Your task to perform on an android device: Go to Yahoo.com Image 0: 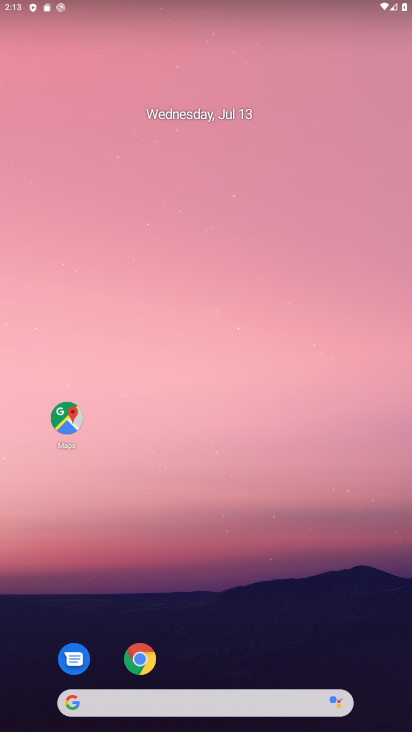
Step 0: press home button
Your task to perform on an android device: Go to Yahoo.com Image 1: 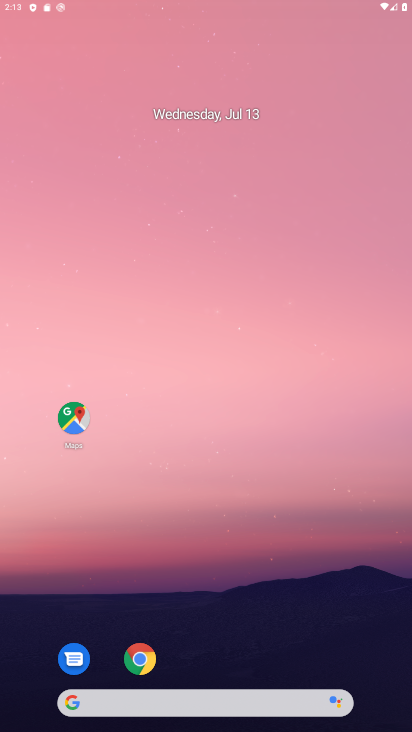
Step 1: drag from (224, 643) to (287, 148)
Your task to perform on an android device: Go to Yahoo.com Image 2: 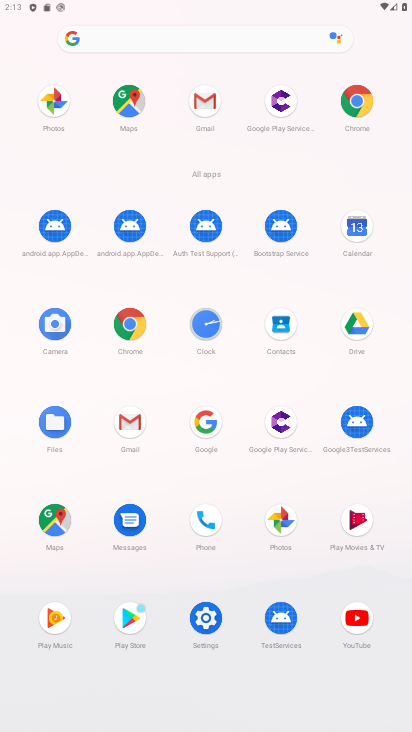
Step 2: click (348, 93)
Your task to perform on an android device: Go to Yahoo.com Image 3: 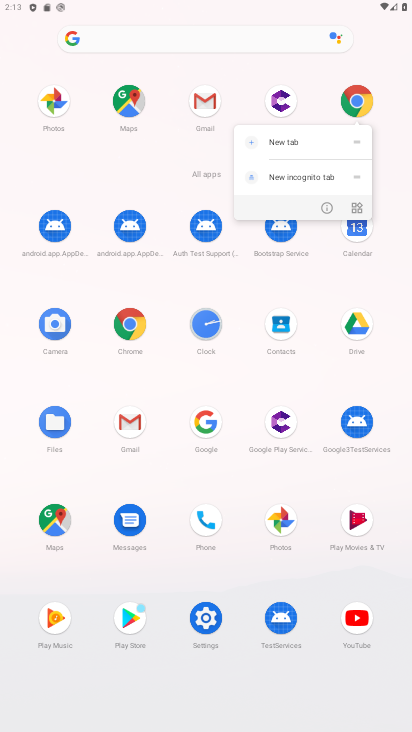
Step 3: click (359, 100)
Your task to perform on an android device: Go to Yahoo.com Image 4: 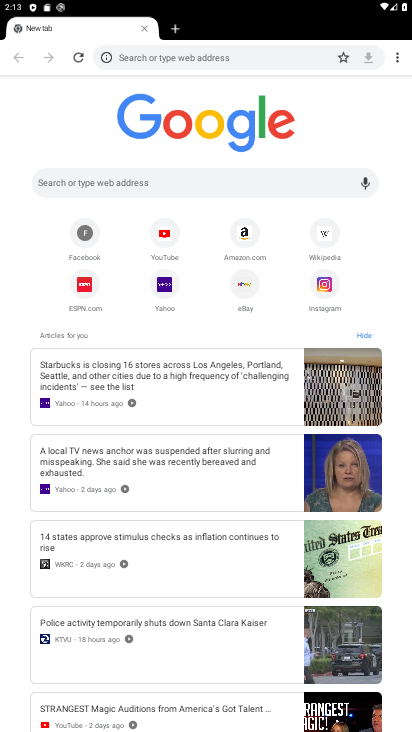
Step 4: click (162, 275)
Your task to perform on an android device: Go to Yahoo.com Image 5: 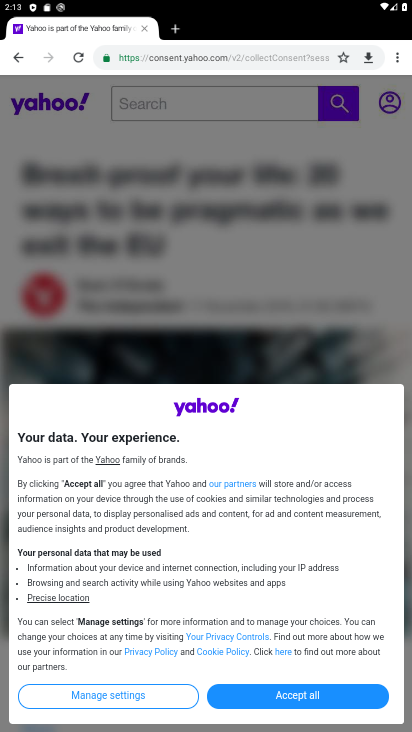
Step 5: click (289, 690)
Your task to perform on an android device: Go to Yahoo.com Image 6: 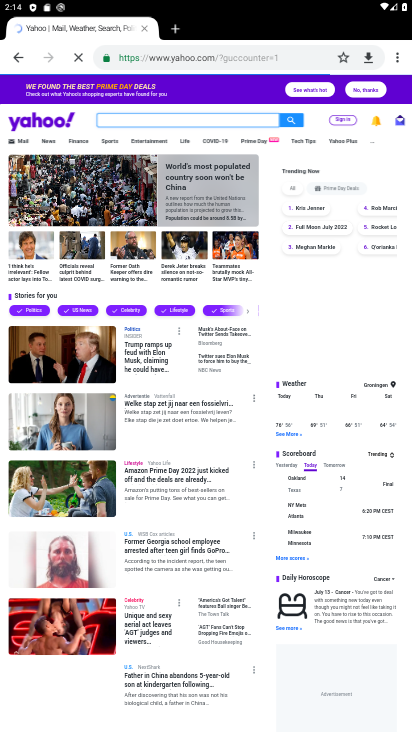
Step 6: drag from (221, 249) to (223, 177)
Your task to perform on an android device: Go to Yahoo.com Image 7: 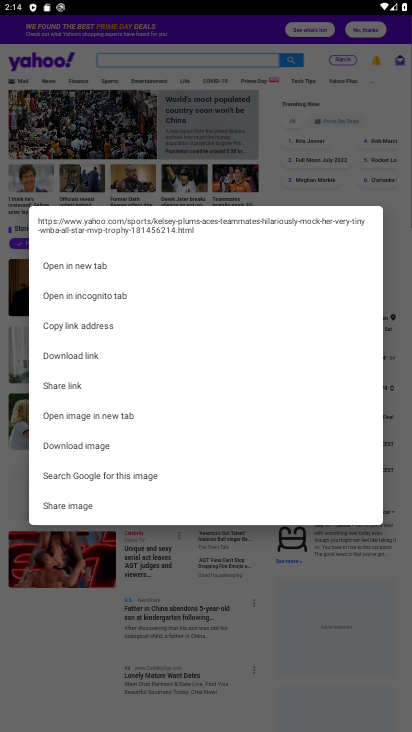
Step 7: click (223, 593)
Your task to perform on an android device: Go to Yahoo.com Image 8: 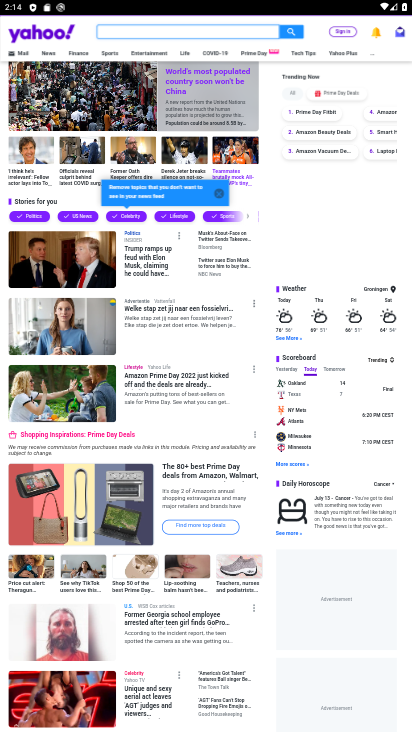
Step 8: task complete